Your task to perform on an android device: Do I have any events today? Image 0: 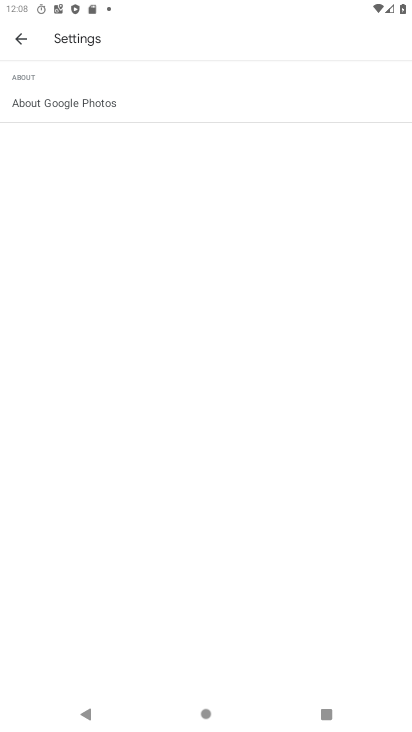
Step 0: click (16, 38)
Your task to perform on an android device: Do I have any events today? Image 1: 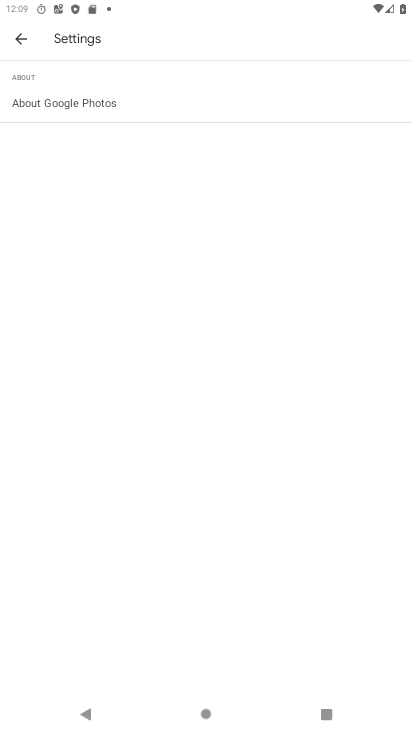
Step 1: click (16, 38)
Your task to perform on an android device: Do I have any events today? Image 2: 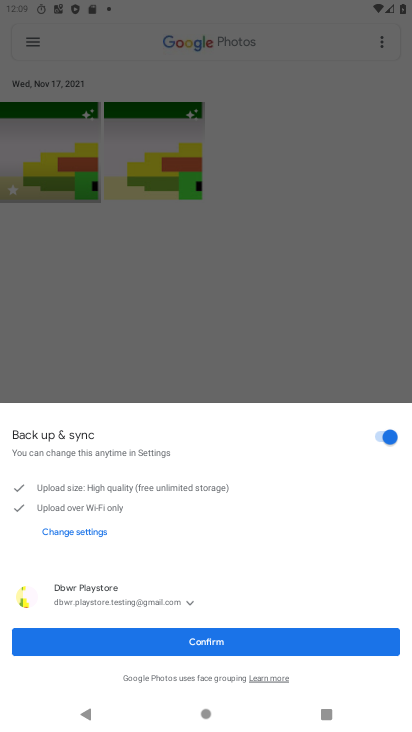
Step 2: press home button
Your task to perform on an android device: Do I have any events today? Image 3: 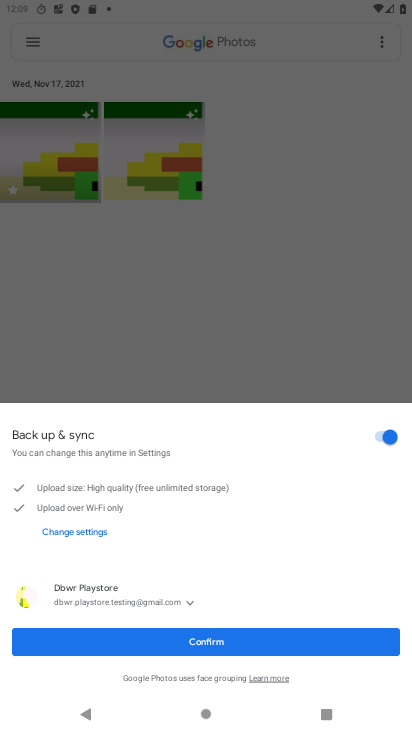
Step 3: press home button
Your task to perform on an android device: Do I have any events today? Image 4: 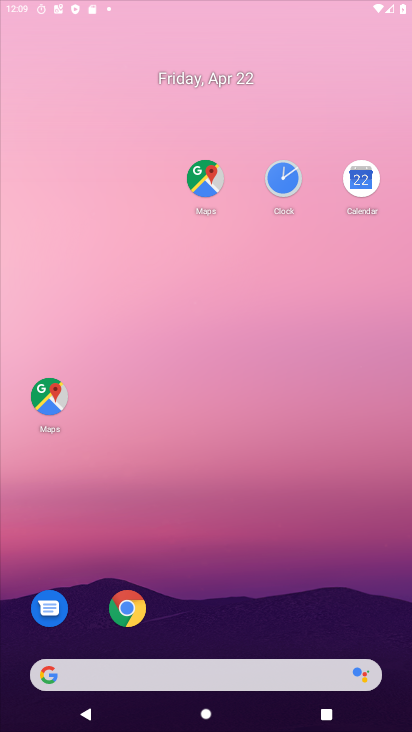
Step 4: press home button
Your task to perform on an android device: Do I have any events today? Image 5: 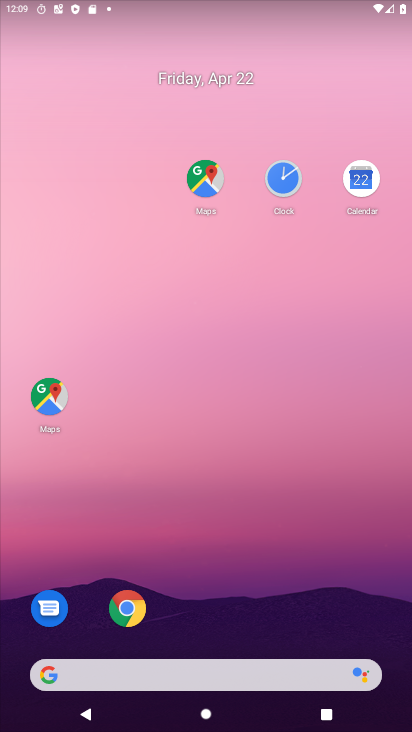
Step 5: drag from (255, 674) to (193, 59)
Your task to perform on an android device: Do I have any events today? Image 6: 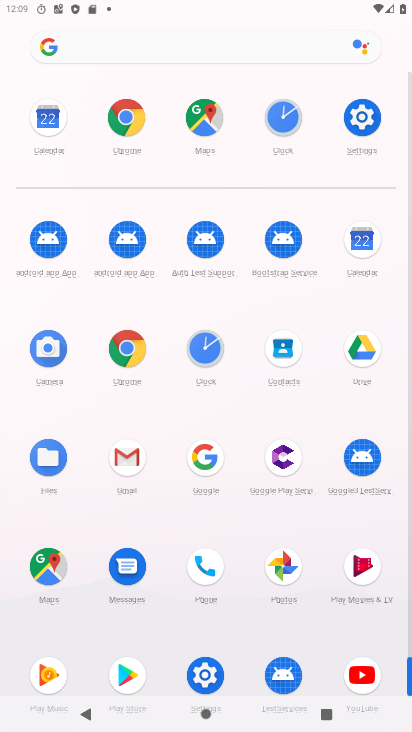
Step 6: drag from (263, 496) to (225, 11)
Your task to perform on an android device: Do I have any events today? Image 7: 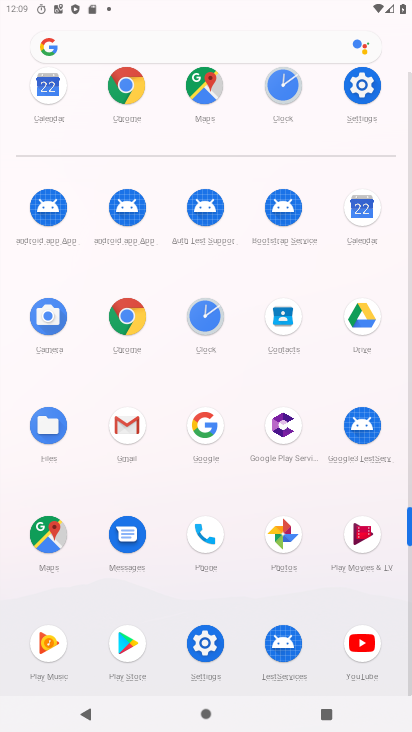
Step 7: click (359, 214)
Your task to perform on an android device: Do I have any events today? Image 8: 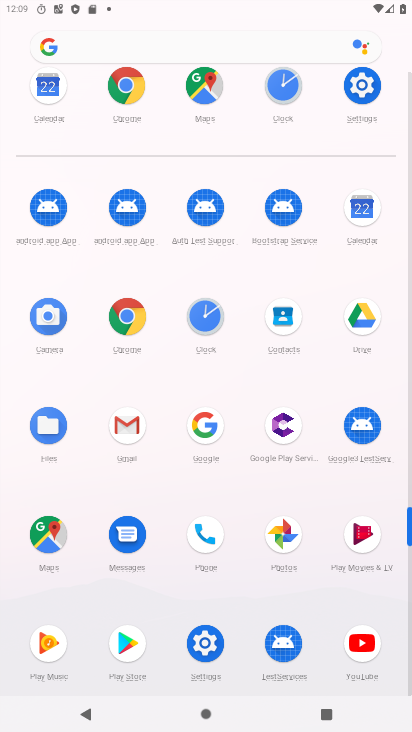
Step 8: click (359, 214)
Your task to perform on an android device: Do I have any events today? Image 9: 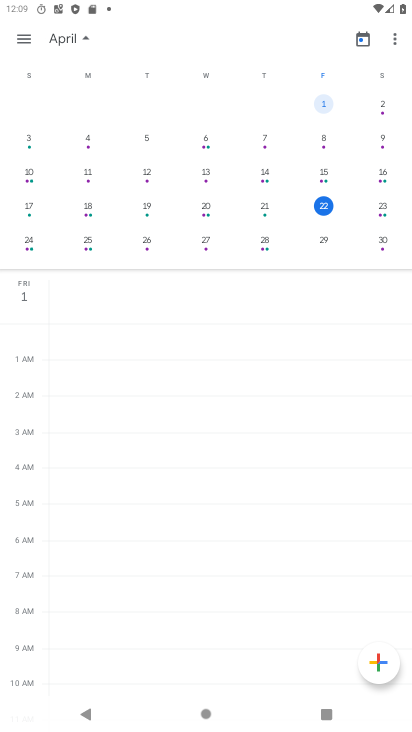
Step 9: click (20, 44)
Your task to perform on an android device: Do I have any events today? Image 10: 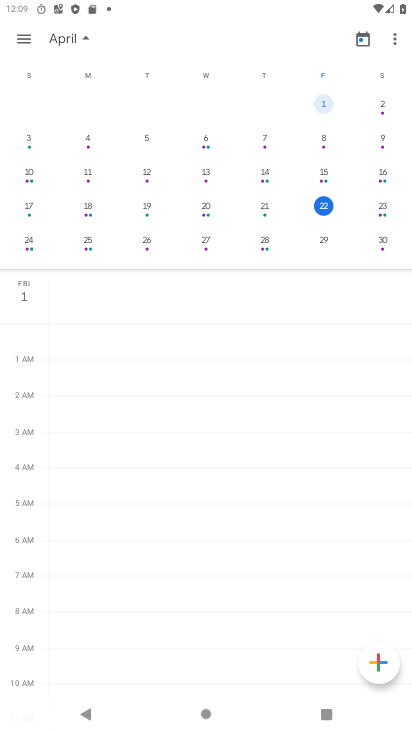
Step 10: click (23, 43)
Your task to perform on an android device: Do I have any events today? Image 11: 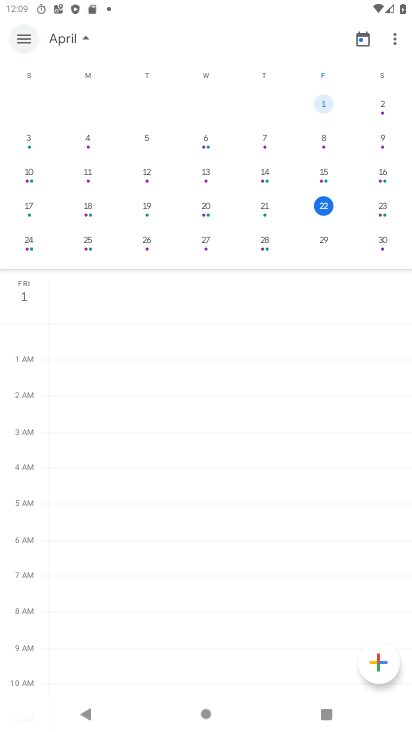
Step 11: click (24, 54)
Your task to perform on an android device: Do I have any events today? Image 12: 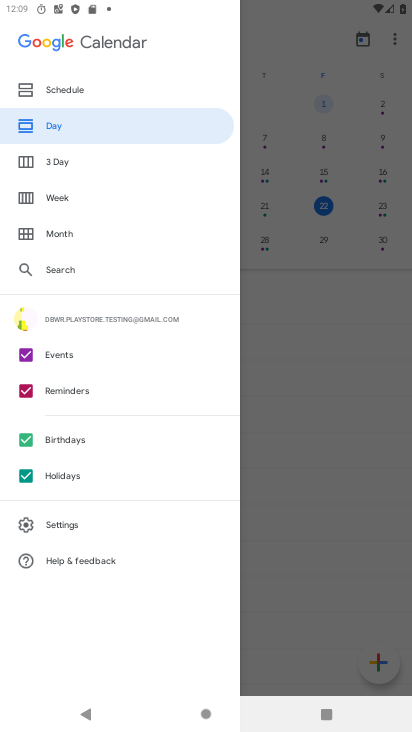
Step 12: click (63, 351)
Your task to perform on an android device: Do I have any events today? Image 13: 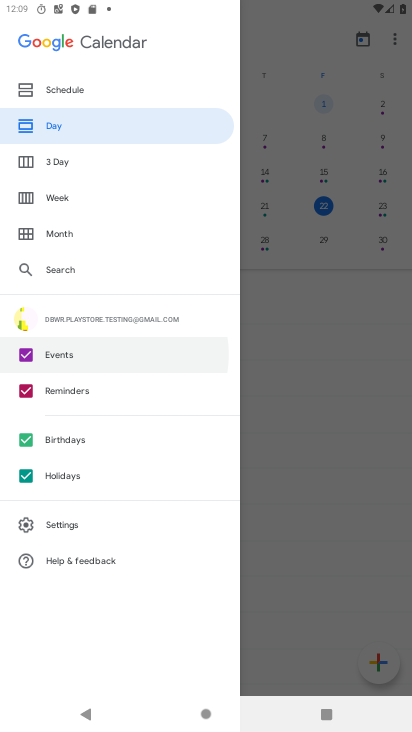
Step 13: click (63, 351)
Your task to perform on an android device: Do I have any events today? Image 14: 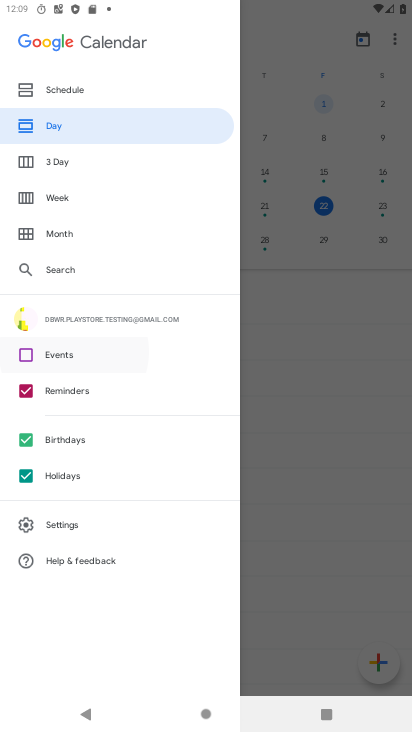
Step 14: click (63, 351)
Your task to perform on an android device: Do I have any events today? Image 15: 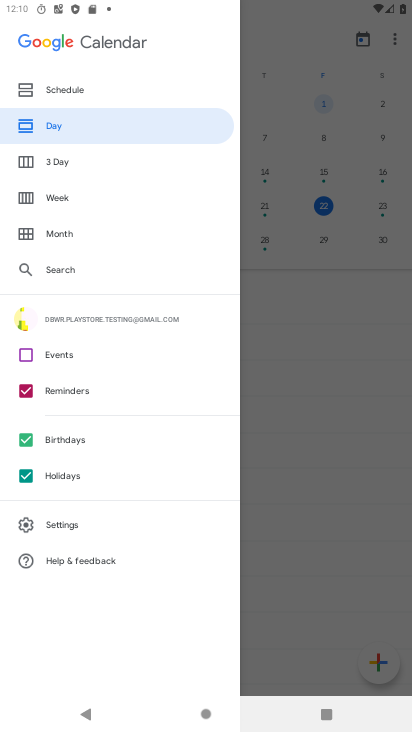
Step 15: click (63, 351)
Your task to perform on an android device: Do I have any events today? Image 16: 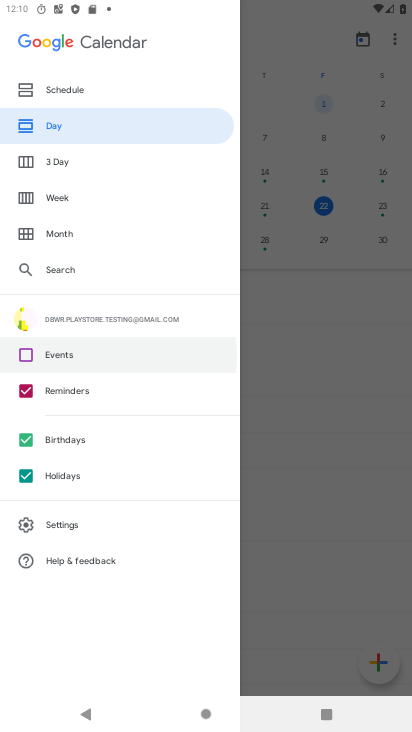
Step 16: click (63, 351)
Your task to perform on an android device: Do I have any events today? Image 17: 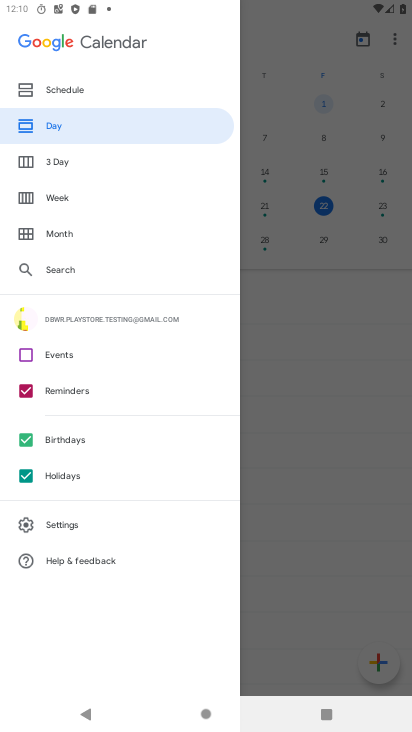
Step 17: click (37, 359)
Your task to perform on an android device: Do I have any events today? Image 18: 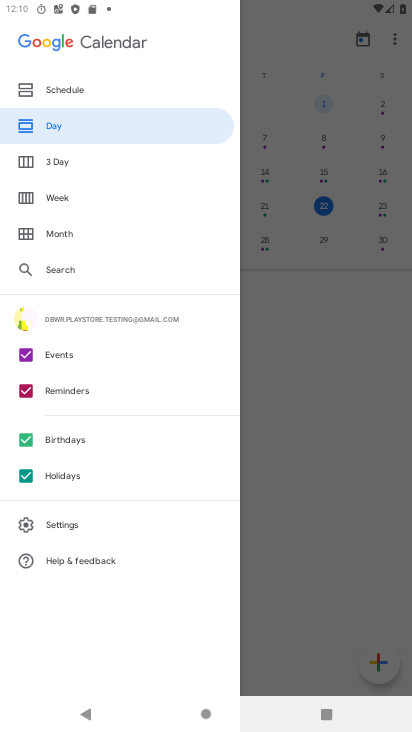
Step 18: task complete